Your task to perform on an android device: turn off priority inbox in the gmail app Image 0: 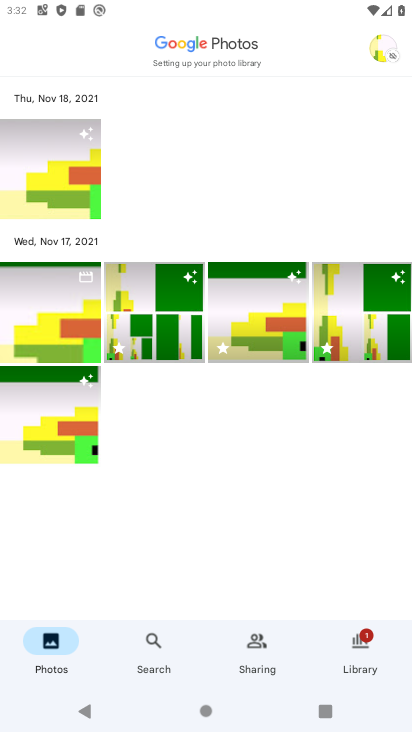
Step 0: press home button
Your task to perform on an android device: turn off priority inbox in the gmail app Image 1: 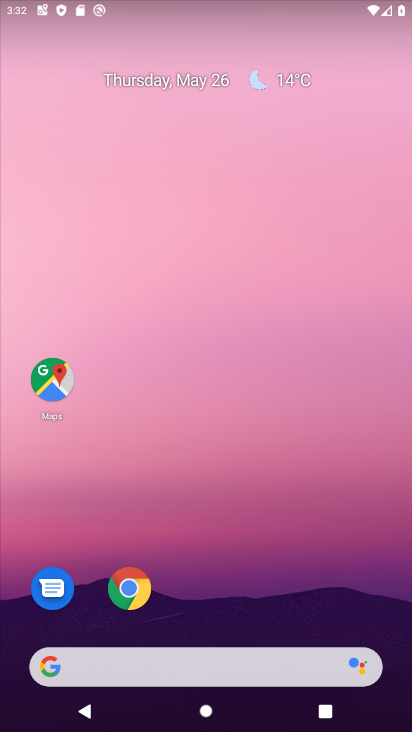
Step 1: drag from (279, 580) to (332, 31)
Your task to perform on an android device: turn off priority inbox in the gmail app Image 2: 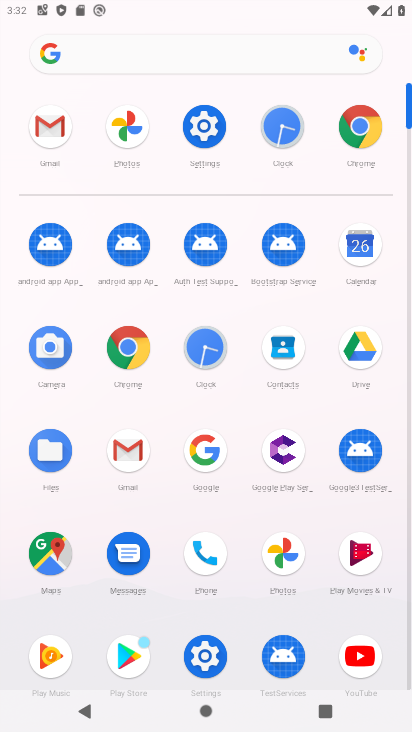
Step 2: click (139, 459)
Your task to perform on an android device: turn off priority inbox in the gmail app Image 3: 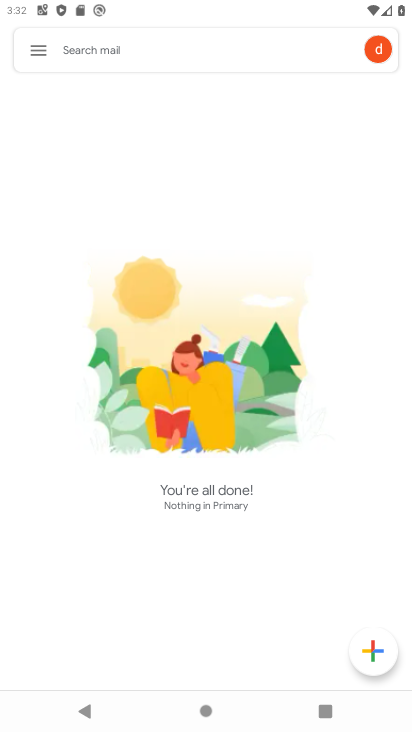
Step 3: click (43, 46)
Your task to perform on an android device: turn off priority inbox in the gmail app Image 4: 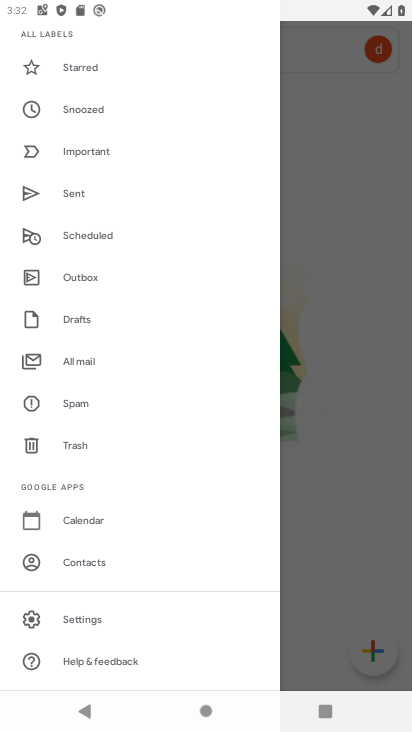
Step 4: click (86, 606)
Your task to perform on an android device: turn off priority inbox in the gmail app Image 5: 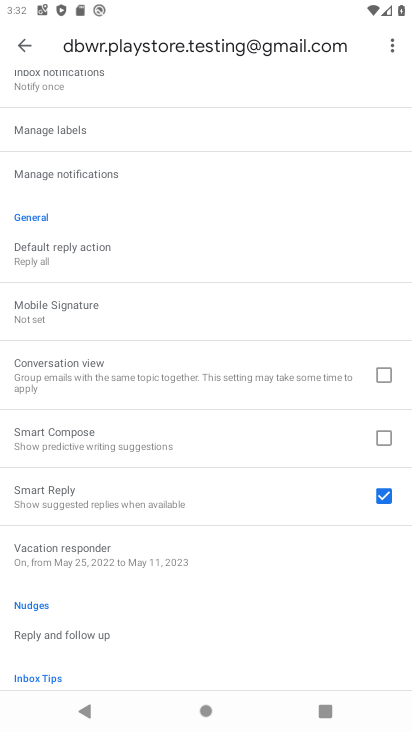
Step 5: drag from (89, 198) to (77, 581)
Your task to perform on an android device: turn off priority inbox in the gmail app Image 6: 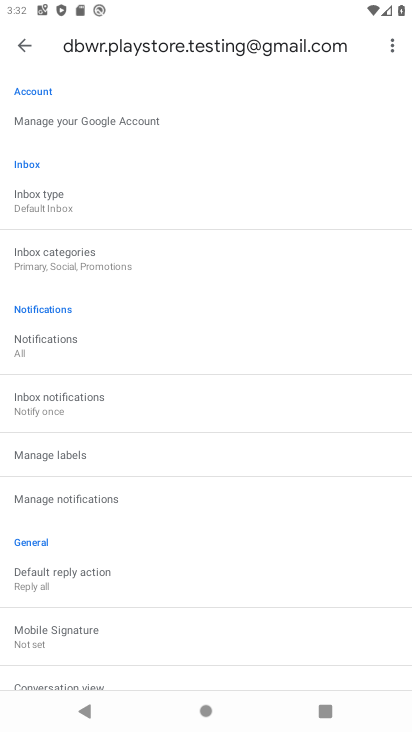
Step 6: click (74, 197)
Your task to perform on an android device: turn off priority inbox in the gmail app Image 7: 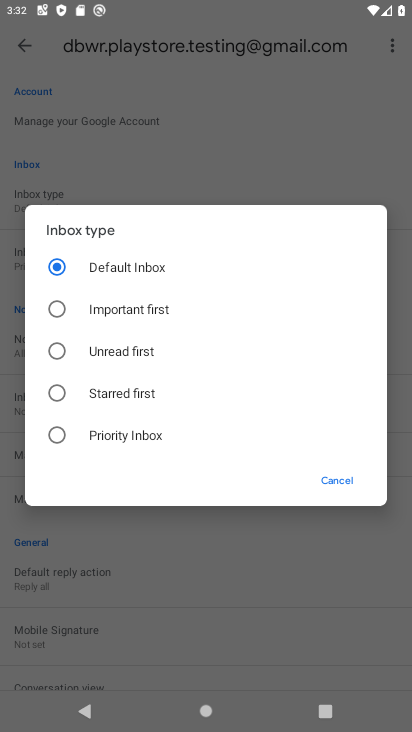
Step 7: click (136, 423)
Your task to perform on an android device: turn off priority inbox in the gmail app Image 8: 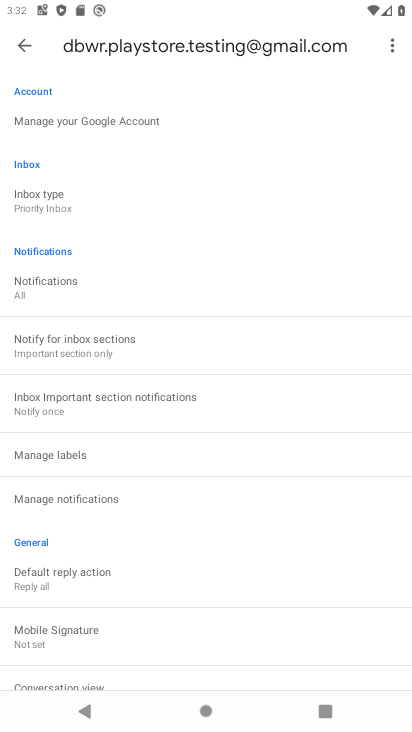
Step 8: task complete